Your task to perform on an android device: What's the weather? Image 0: 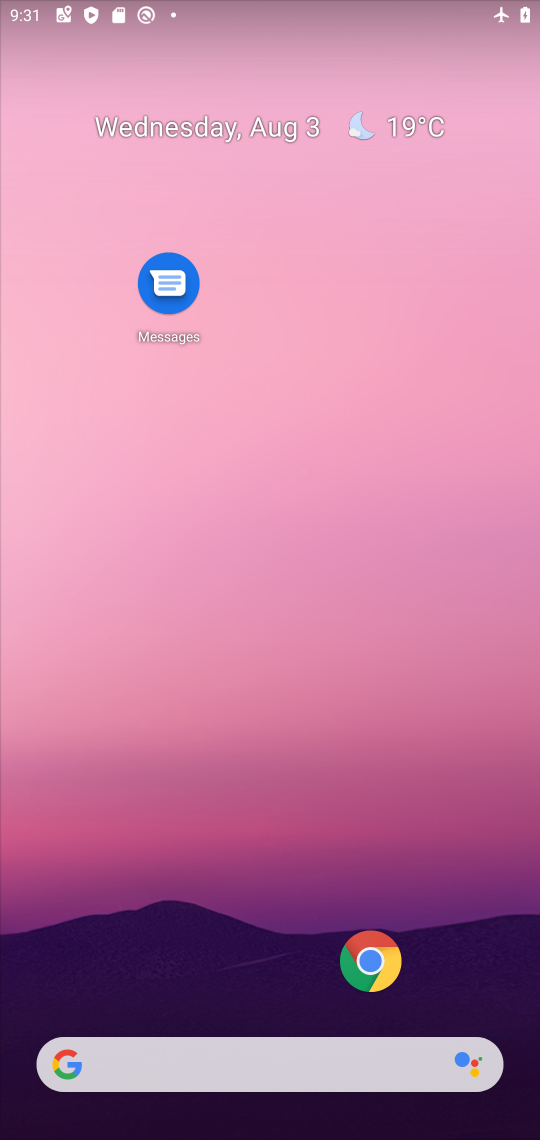
Step 0: click (273, 1057)
Your task to perform on an android device: What's the weather? Image 1: 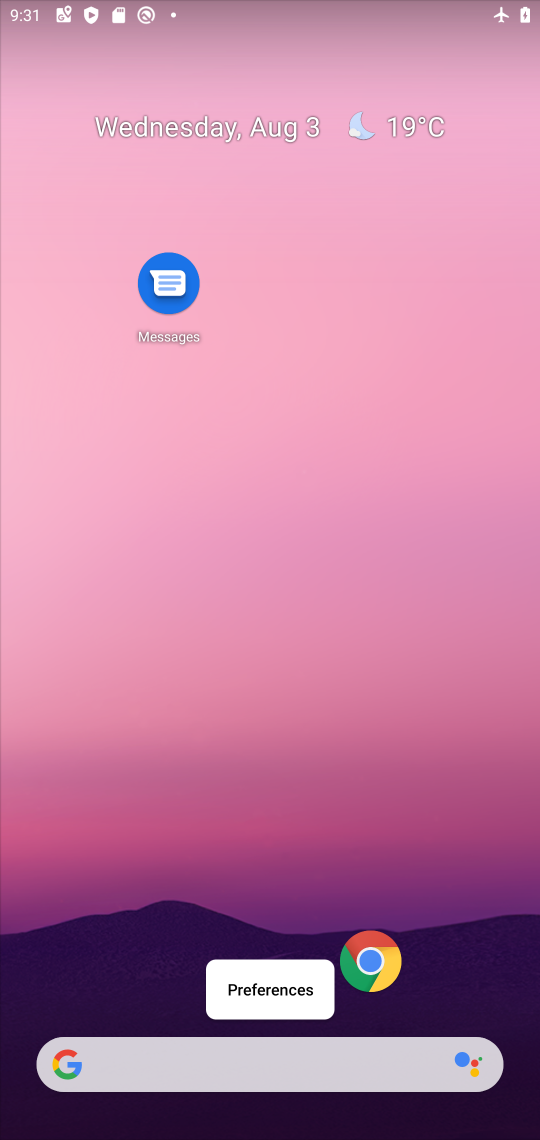
Step 1: click (279, 1049)
Your task to perform on an android device: What's the weather? Image 2: 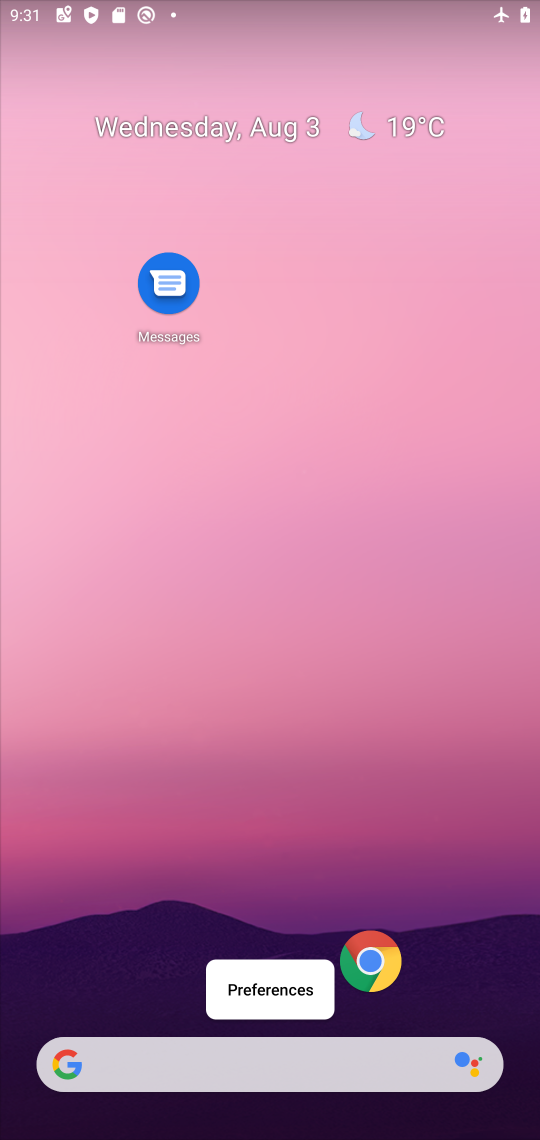
Step 2: click (148, 1086)
Your task to perform on an android device: What's the weather? Image 3: 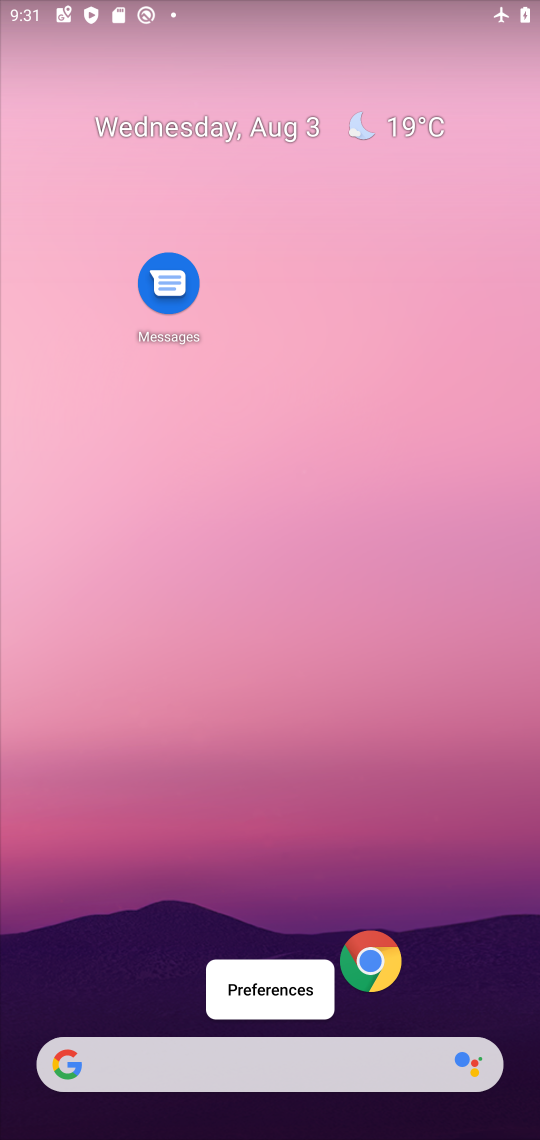
Step 3: click (165, 1049)
Your task to perform on an android device: What's the weather? Image 4: 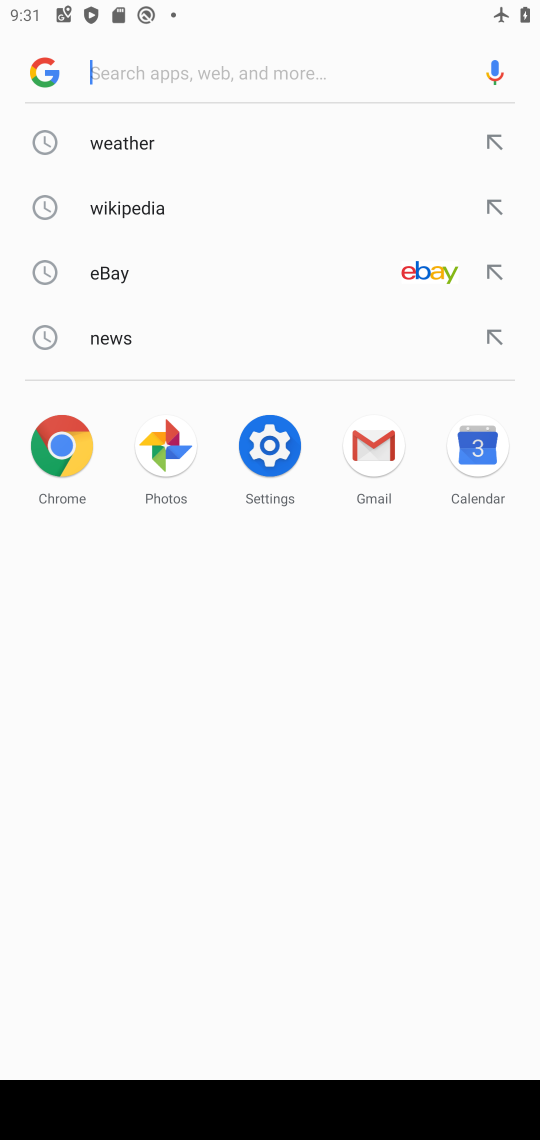
Step 4: click (109, 119)
Your task to perform on an android device: What's the weather? Image 5: 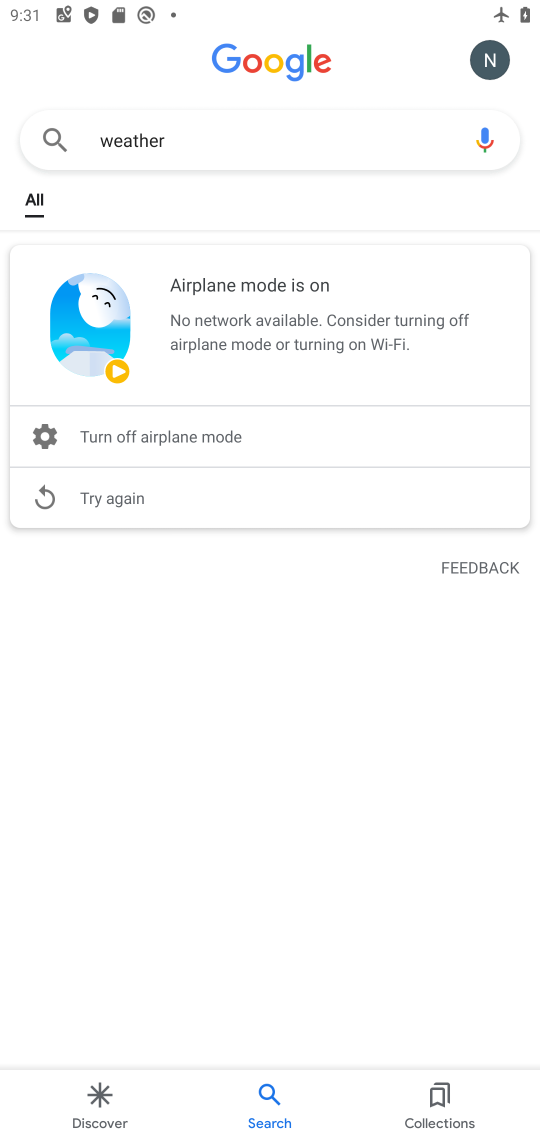
Step 5: task complete